Your task to perform on an android device: check google app version Image 0: 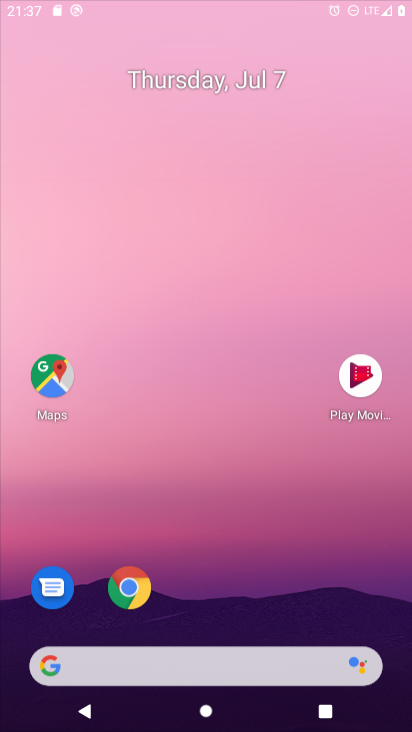
Step 0: click (173, 214)
Your task to perform on an android device: check google app version Image 1: 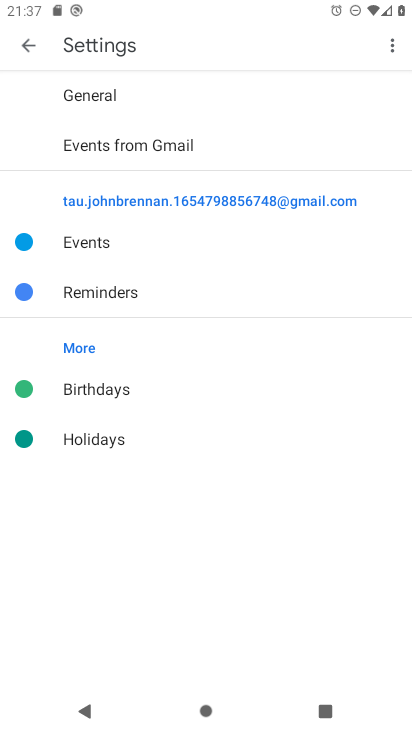
Step 1: press home button
Your task to perform on an android device: check google app version Image 2: 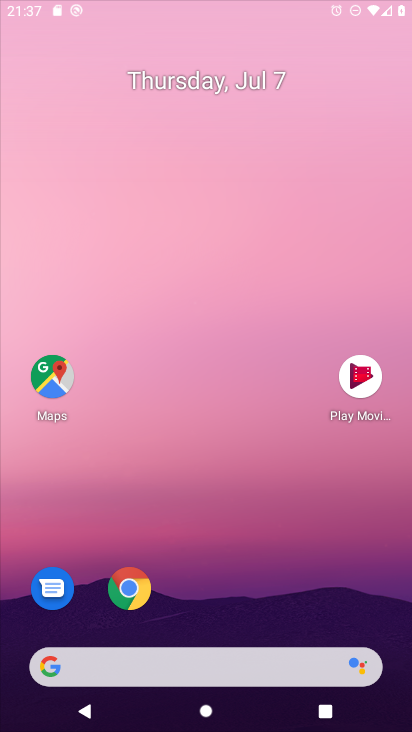
Step 2: drag from (200, 650) to (173, 169)
Your task to perform on an android device: check google app version Image 3: 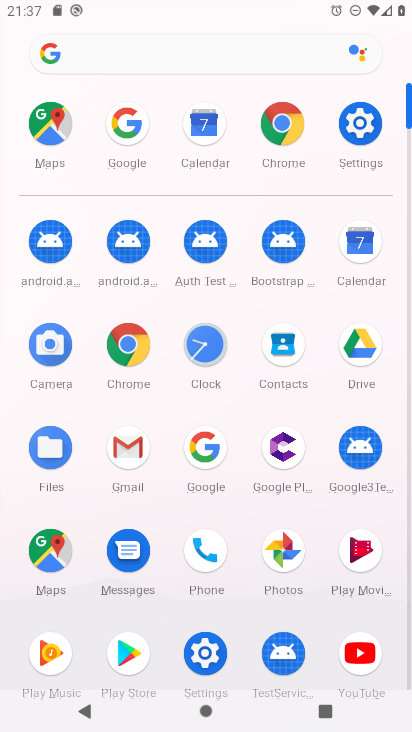
Step 3: click (188, 441)
Your task to perform on an android device: check google app version Image 4: 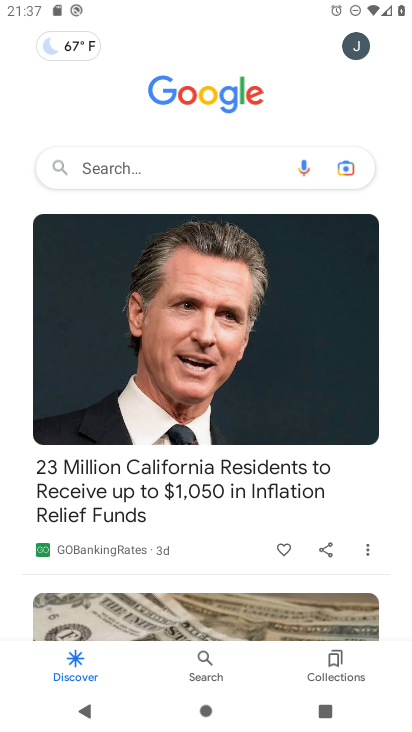
Step 4: click (374, 47)
Your task to perform on an android device: check google app version Image 5: 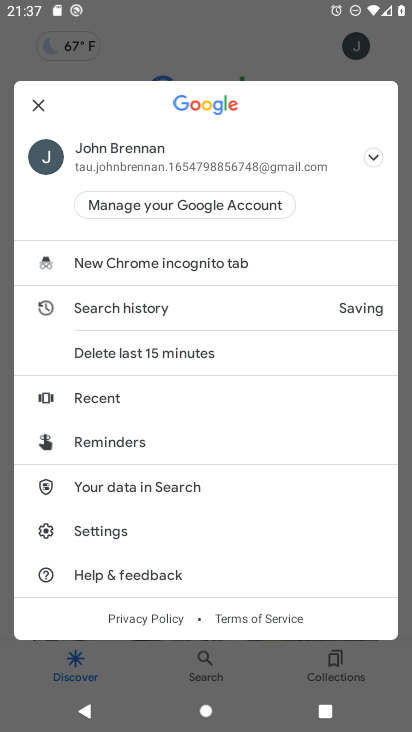
Step 5: click (121, 525)
Your task to perform on an android device: check google app version Image 6: 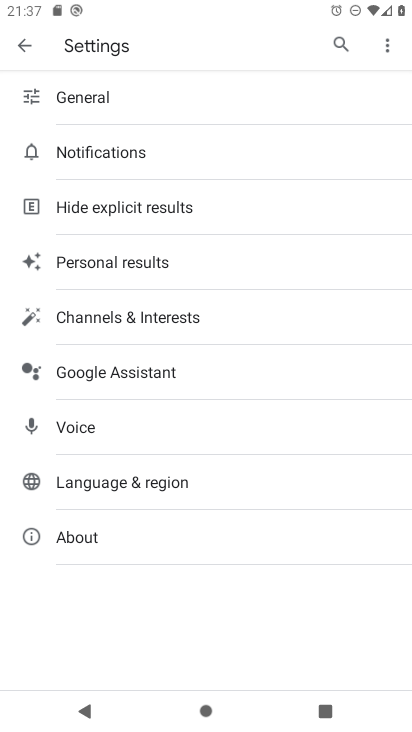
Step 6: click (105, 532)
Your task to perform on an android device: check google app version Image 7: 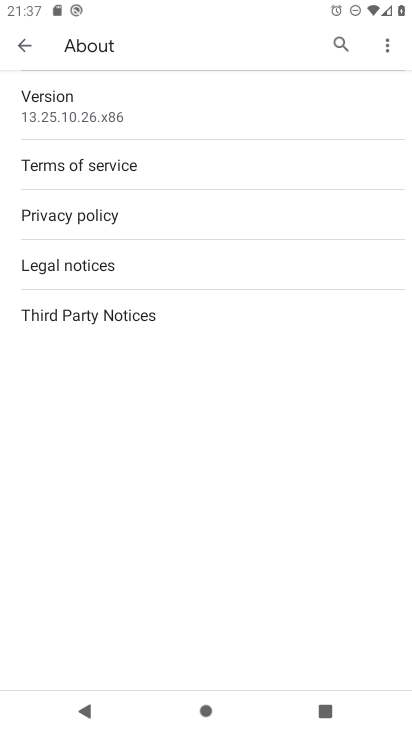
Step 7: click (131, 108)
Your task to perform on an android device: check google app version Image 8: 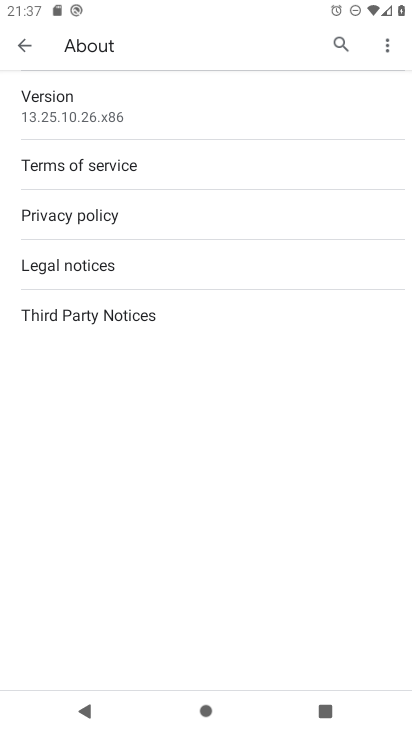
Step 8: task complete